Your task to perform on an android device: turn on sleep mode Image 0: 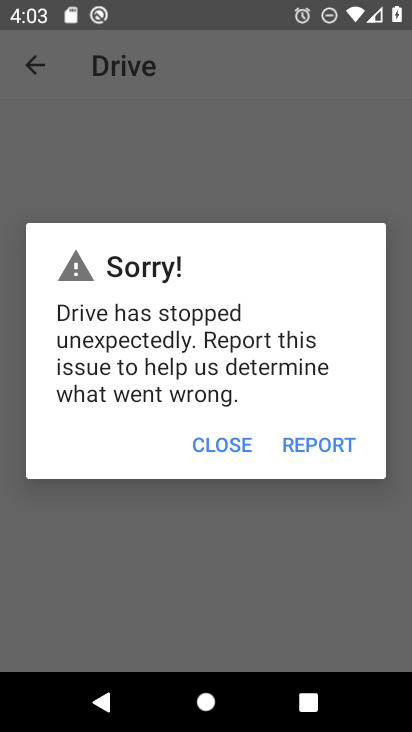
Step 0: press home button
Your task to perform on an android device: turn on sleep mode Image 1: 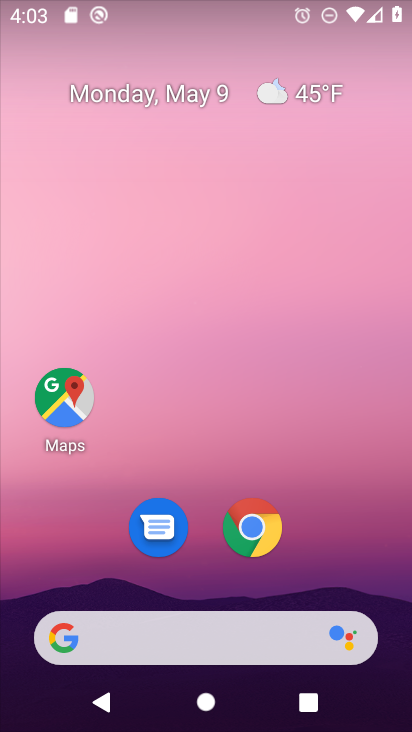
Step 1: drag from (351, 562) to (339, 121)
Your task to perform on an android device: turn on sleep mode Image 2: 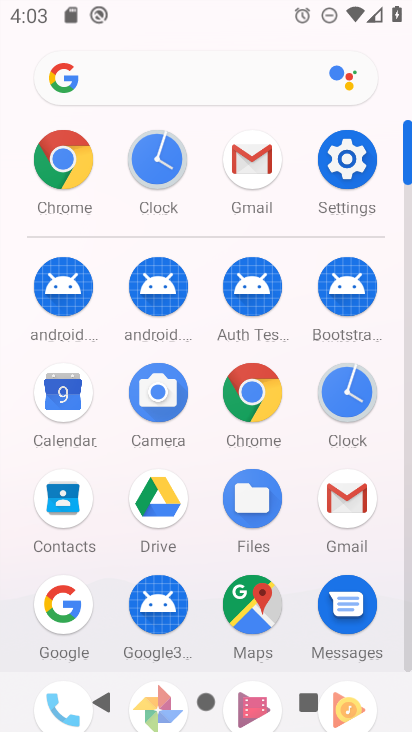
Step 2: click (340, 166)
Your task to perform on an android device: turn on sleep mode Image 3: 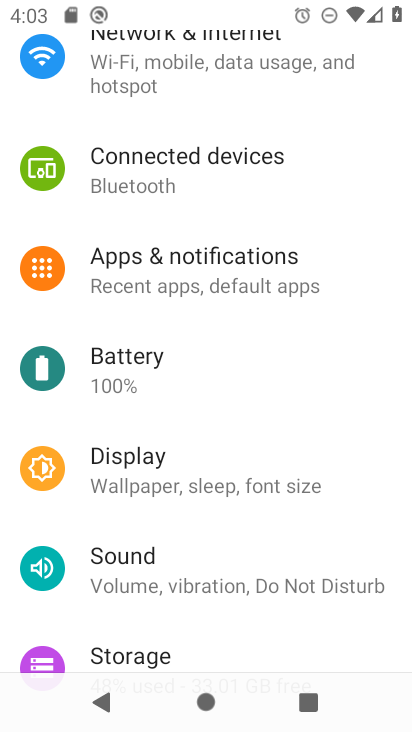
Step 3: click (314, 486)
Your task to perform on an android device: turn on sleep mode Image 4: 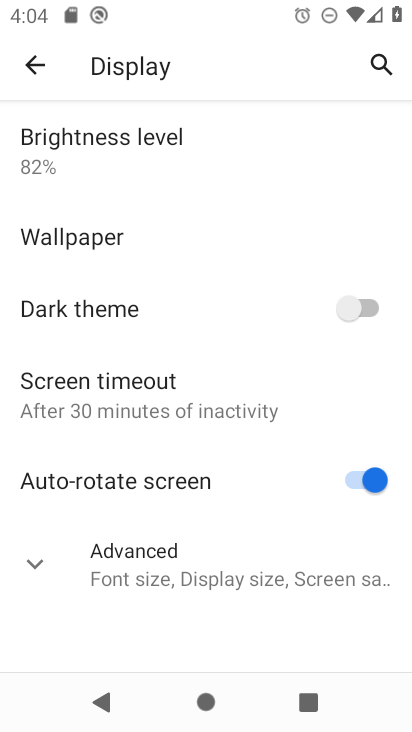
Step 4: click (311, 565)
Your task to perform on an android device: turn on sleep mode Image 5: 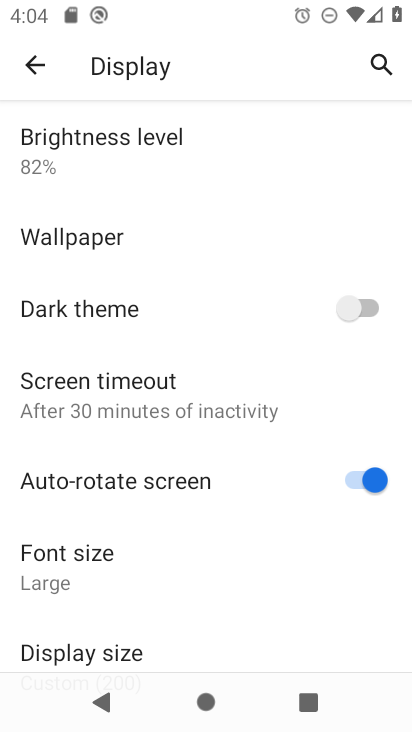
Step 5: task complete